Your task to perform on an android device: check the backup settings in the google photos Image 0: 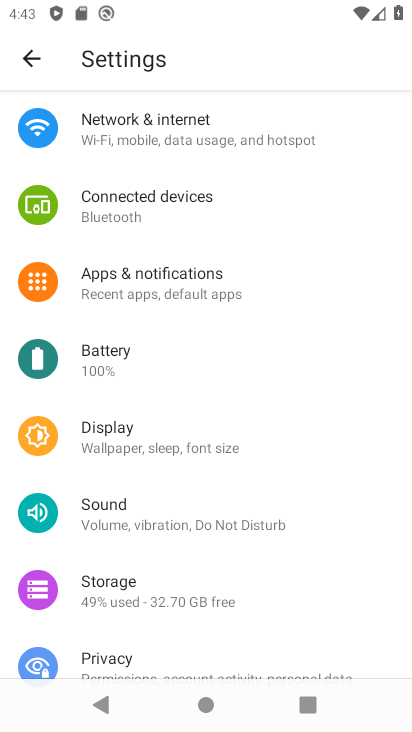
Step 0: press home button
Your task to perform on an android device: check the backup settings in the google photos Image 1: 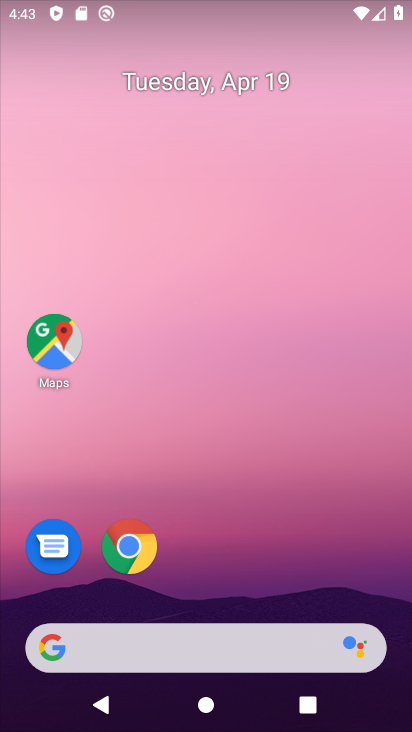
Step 1: drag from (302, 543) to (337, 32)
Your task to perform on an android device: check the backup settings in the google photos Image 2: 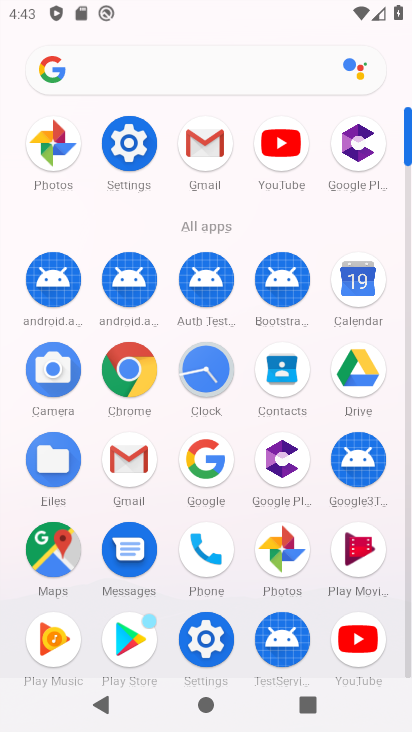
Step 2: click (275, 551)
Your task to perform on an android device: check the backup settings in the google photos Image 3: 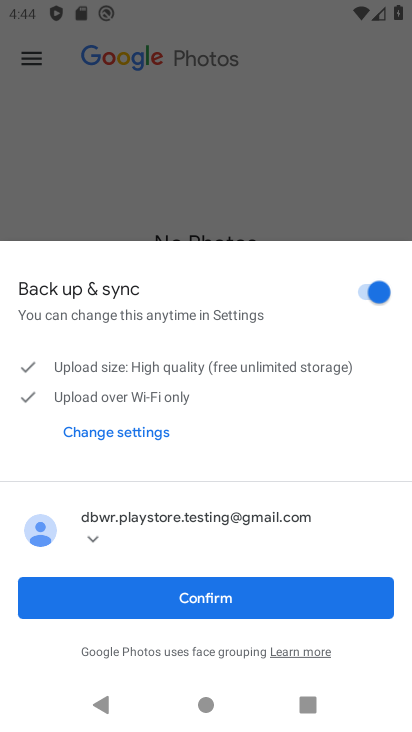
Step 3: click (191, 607)
Your task to perform on an android device: check the backup settings in the google photos Image 4: 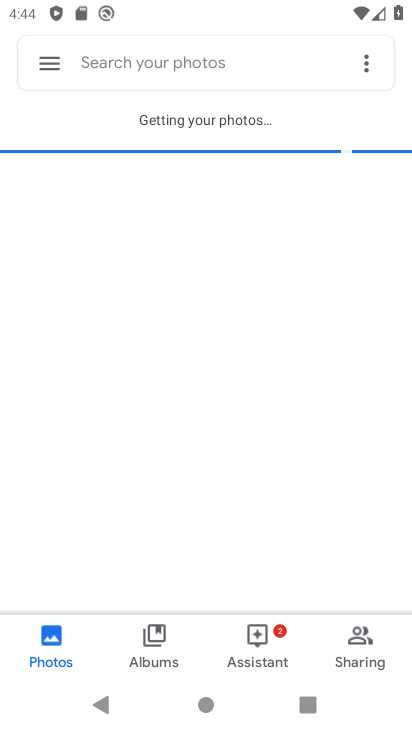
Step 4: click (41, 64)
Your task to perform on an android device: check the backup settings in the google photos Image 5: 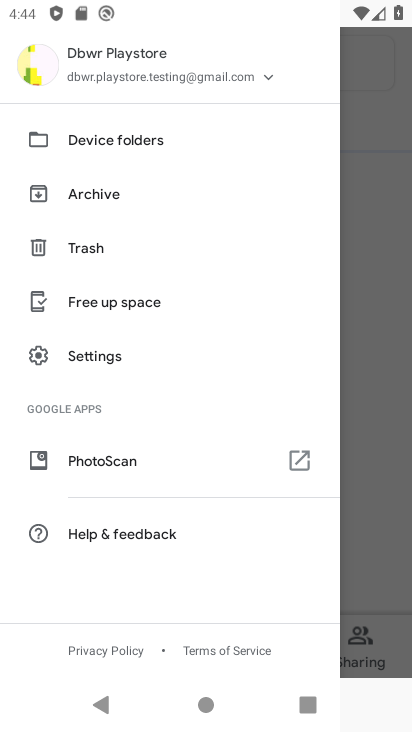
Step 5: click (86, 358)
Your task to perform on an android device: check the backup settings in the google photos Image 6: 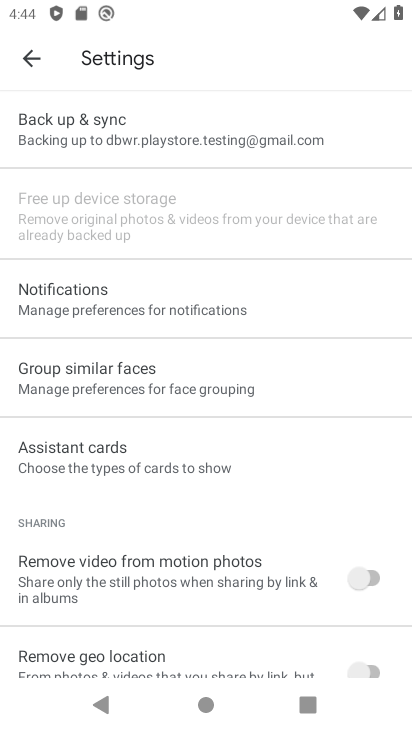
Step 6: click (158, 126)
Your task to perform on an android device: check the backup settings in the google photos Image 7: 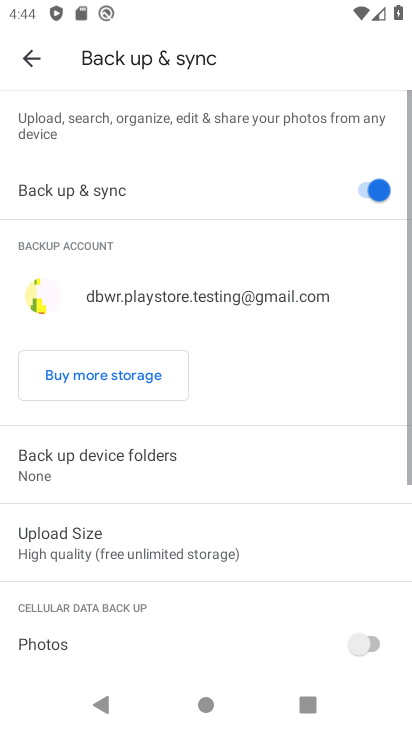
Step 7: task complete